Your task to perform on an android device: add a contact Image 0: 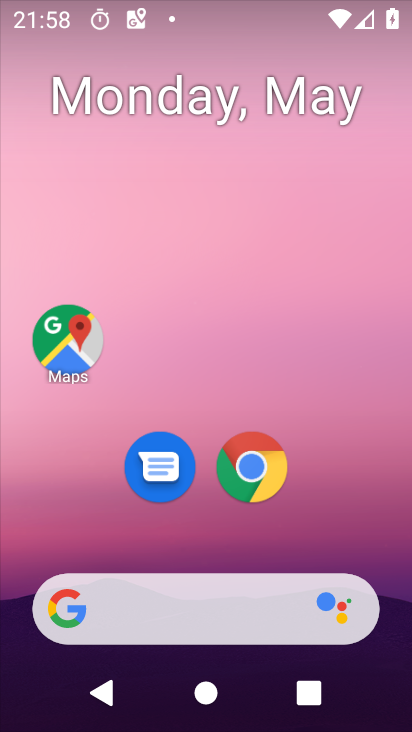
Step 0: drag from (241, 342) to (245, 0)
Your task to perform on an android device: add a contact Image 1: 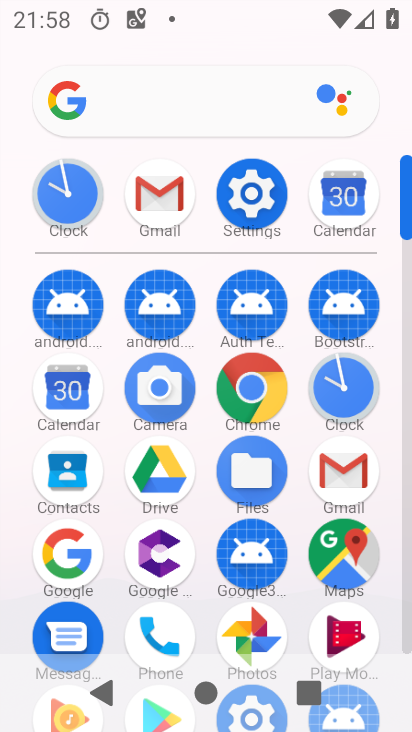
Step 1: click (155, 634)
Your task to perform on an android device: add a contact Image 2: 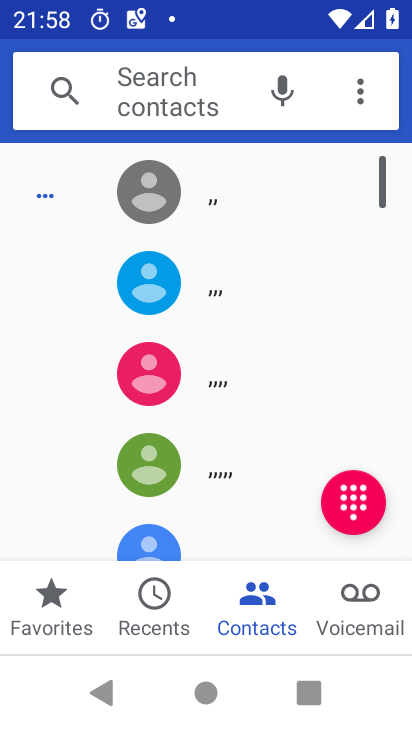
Step 2: drag from (194, 271) to (216, 582)
Your task to perform on an android device: add a contact Image 3: 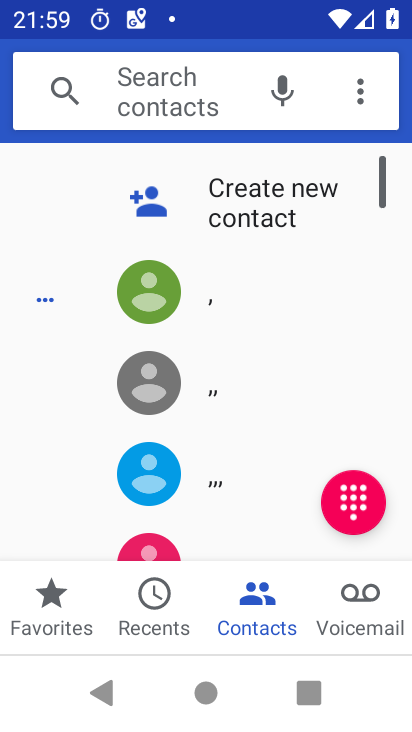
Step 3: click (216, 198)
Your task to perform on an android device: add a contact Image 4: 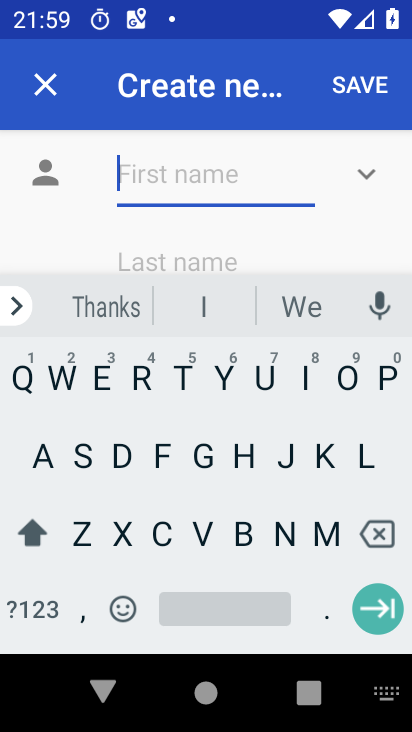
Step 4: click (185, 437)
Your task to perform on an android device: add a contact Image 5: 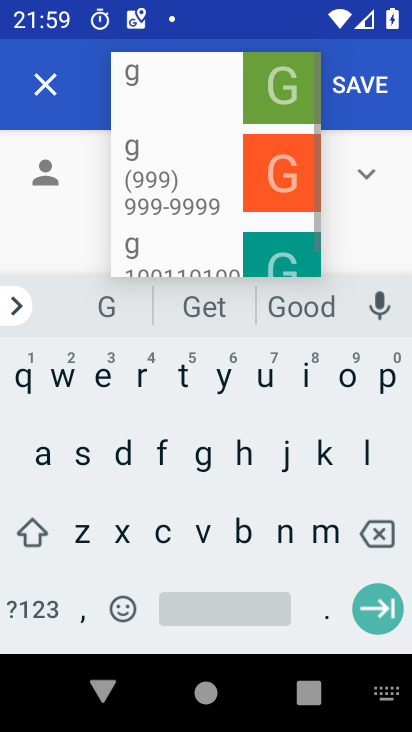
Step 5: click (80, 470)
Your task to perform on an android device: add a contact Image 6: 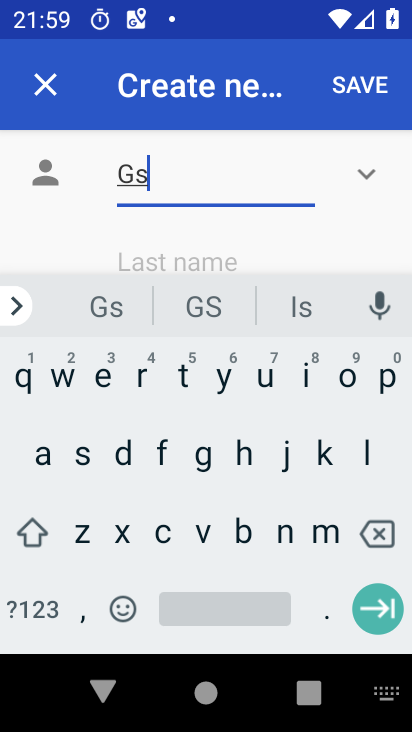
Step 6: click (112, 484)
Your task to perform on an android device: add a contact Image 7: 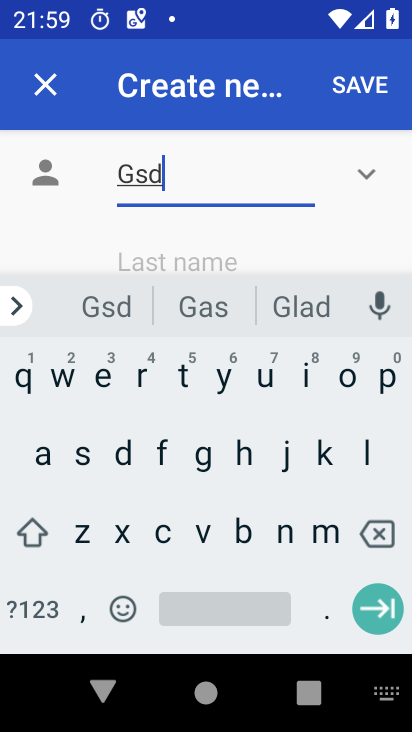
Step 7: click (112, 484)
Your task to perform on an android device: add a contact Image 8: 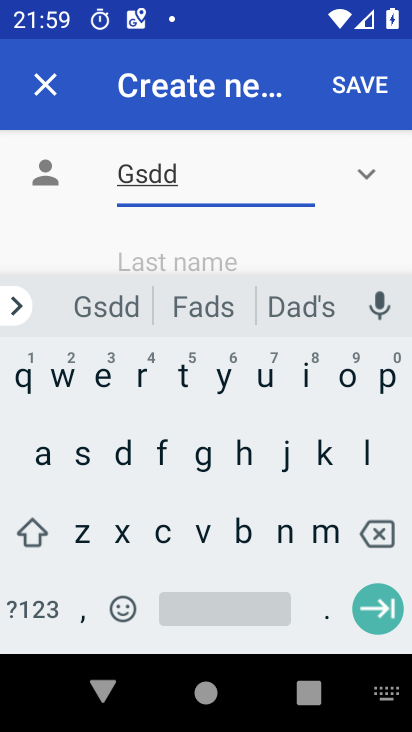
Step 8: drag from (178, 236) to (209, 1)
Your task to perform on an android device: add a contact Image 9: 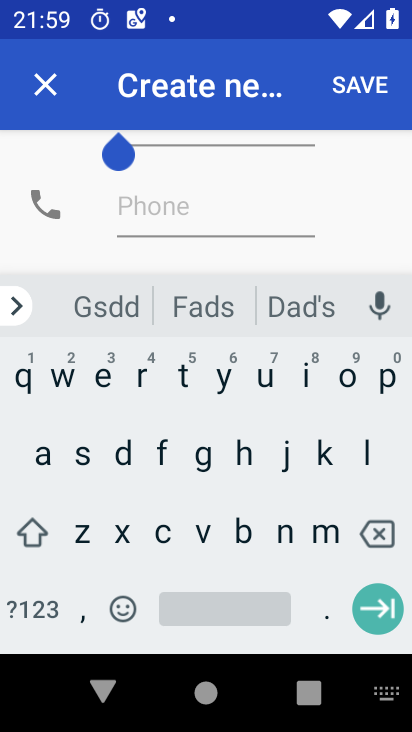
Step 9: click (147, 217)
Your task to perform on an android device: add a contact Image 10: 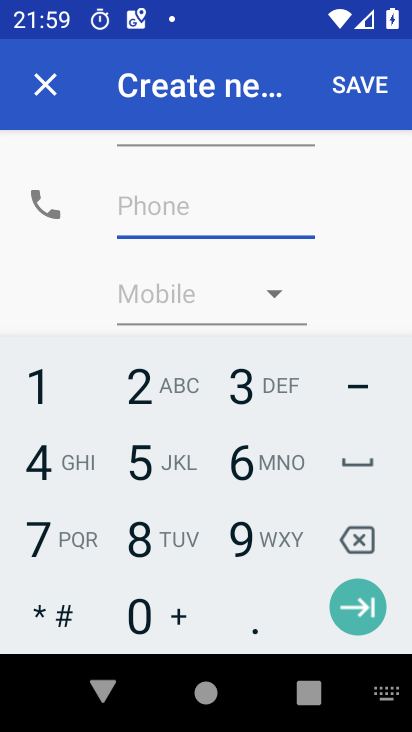
Step 10: click (233, 437)
Your task to perform on an android device: add a contact Image 11: 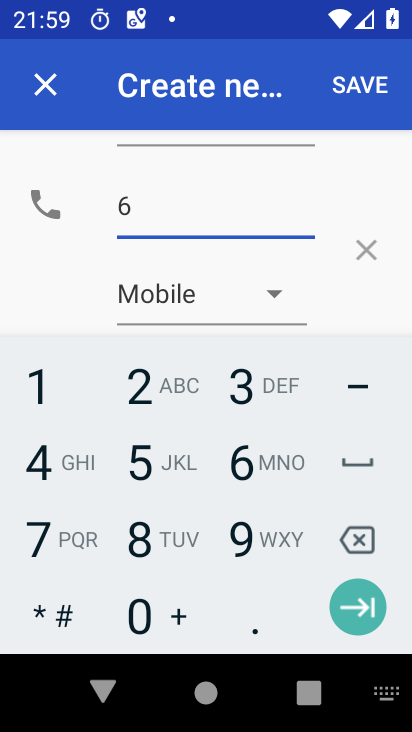
Step 11: click (107, 560)
Your task to perform on an android device: add a contact Image 12: 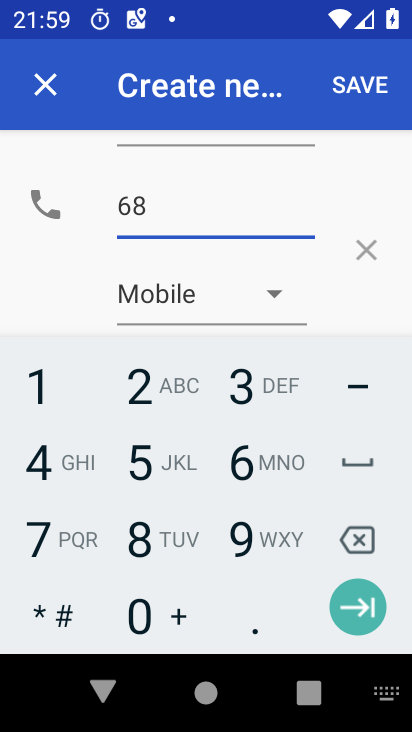
Step 12: click (51, 525)
Your task to perform on an android device: add a contact Image 13: 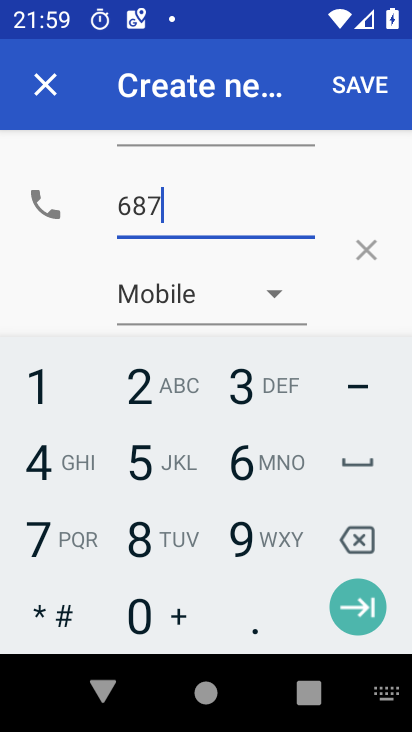
Step 13: click (53, 452)
Your task to perform on an android device: add a contact Image 14: 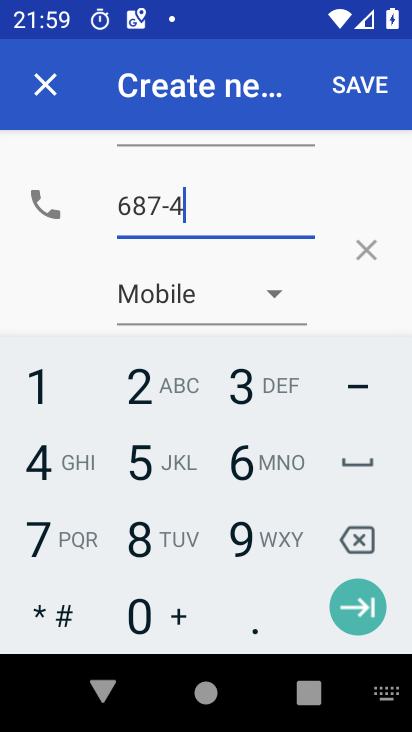
Step 14: click (53, 452)
Your task to perform on an android device: add a contact Image 15: 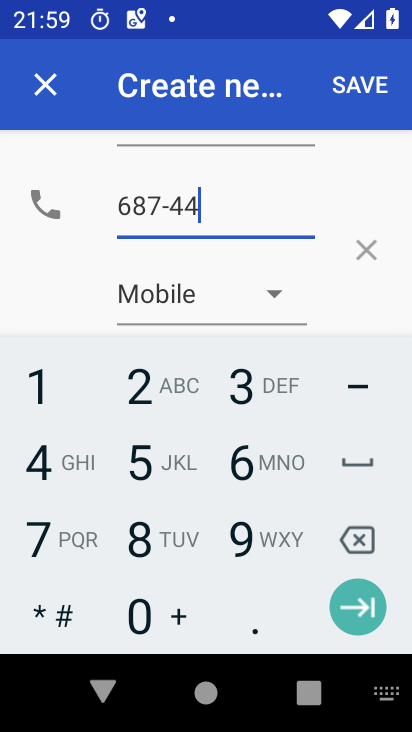
Step 15: click (53, 452)
Your task to perform on an android device: add a contact Image 16: 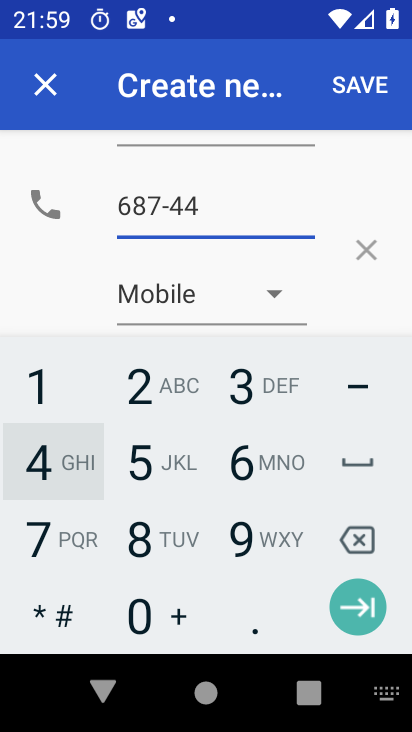
Step 16: click (48, 451)
Your task to perform on an android device: add a contact Image 17: 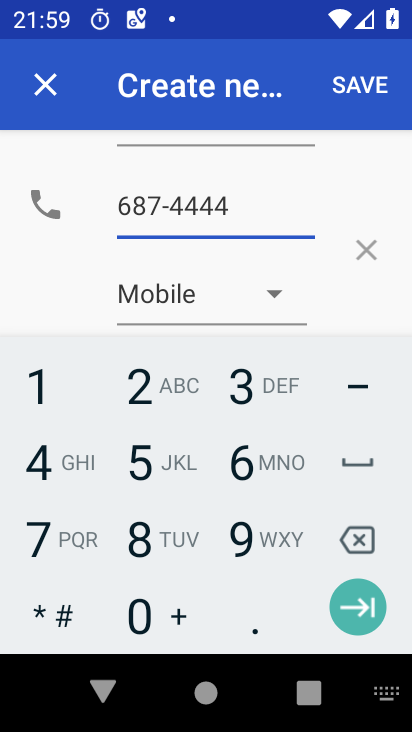
Step 17: click (351, 67)
Your task to perform on an android device: add a contact Image 18: 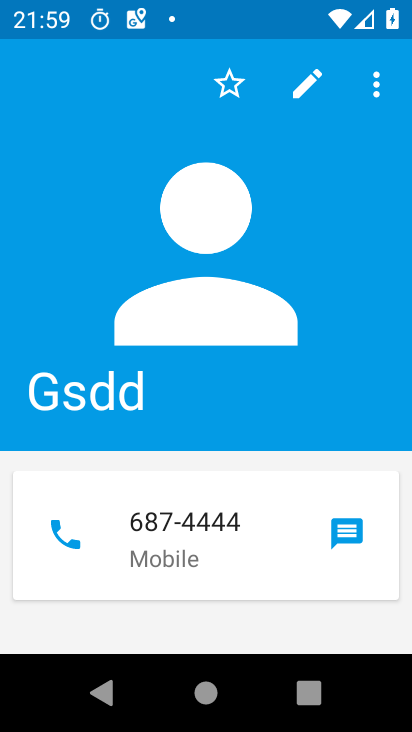
Step 18: task complete